Your task to perform on an android device: Open Google Maps Image 0: 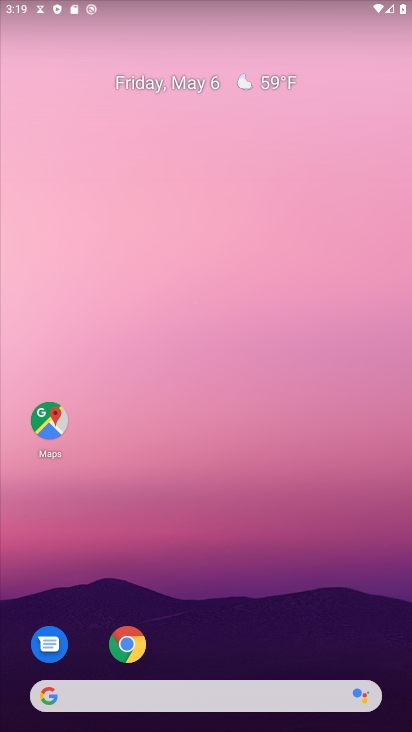
Step 0: click (51, 424)
Your task to perform on an android device: Open Google Maps Image 1: 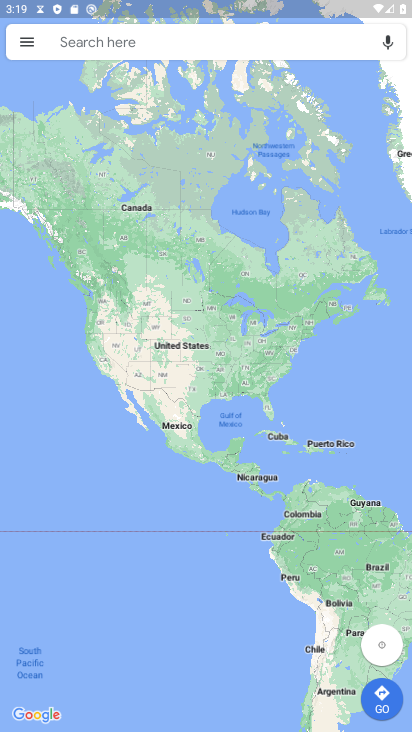
Step 1: task complete